Your task to perform on an android device: Find coffee shops on Maps Image 0: 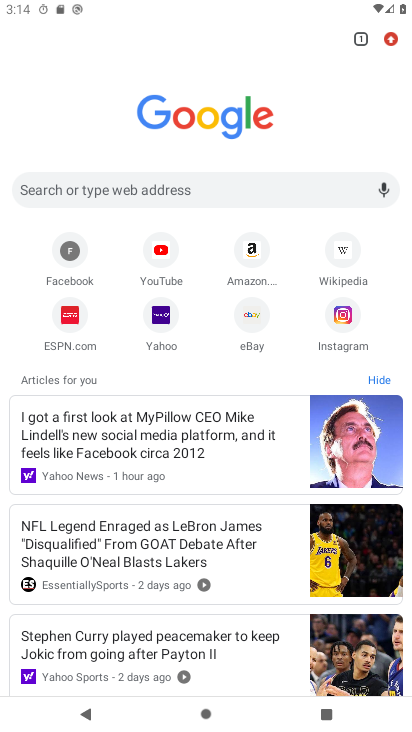
Step 0: press home button
Your task to perform on an android device: Find coffee shops on Maps Image 1: 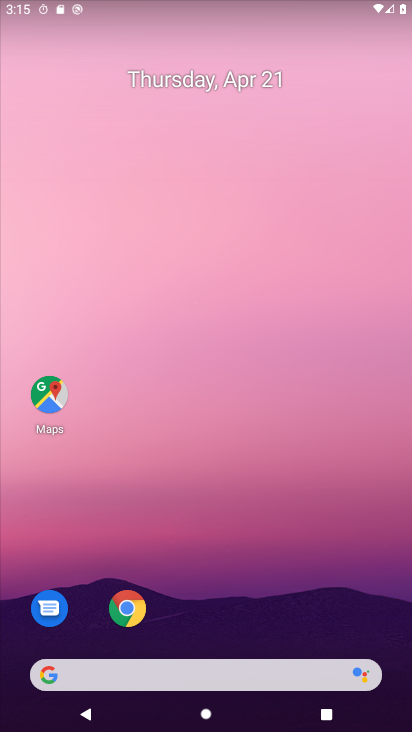
Step 1: click (44, 395)
Your task to perform on an android device: Find coffee shops on Maps Image 2: 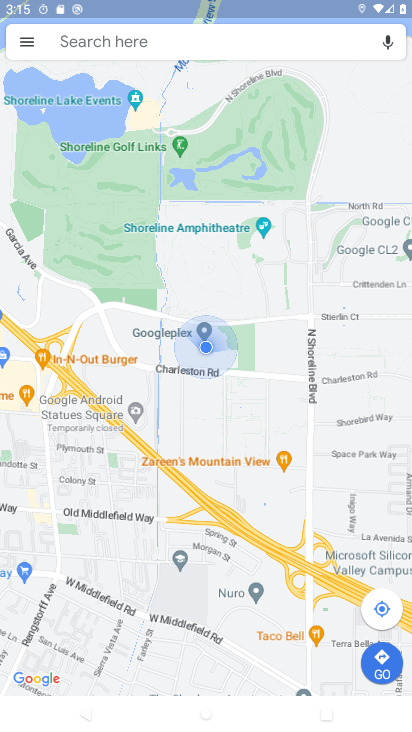
Step 2: click (141, 33)
Your task to perform on an android device: Find coffee shops on Maps Image 3: 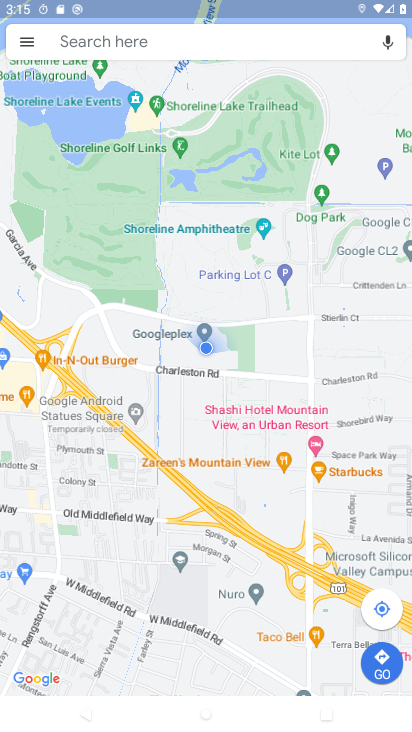
Step 3: click (141, 33)
Your task to perform on an android device: Find coffee shops on Maps Image 4: 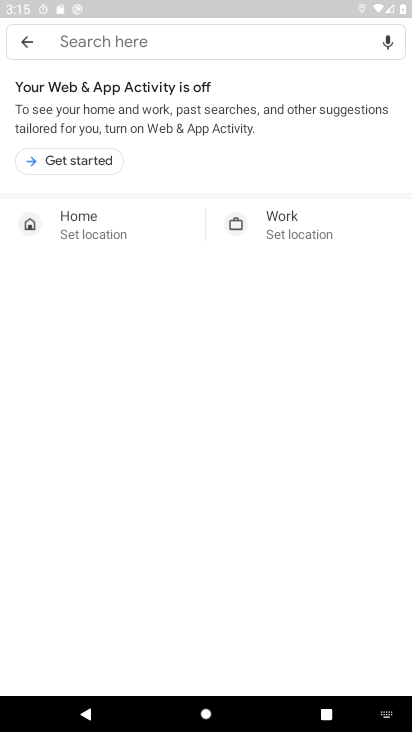
Step 4: click (141, 33)
Your task to perform on an android device: Find coffee shops on Maps Image 5: 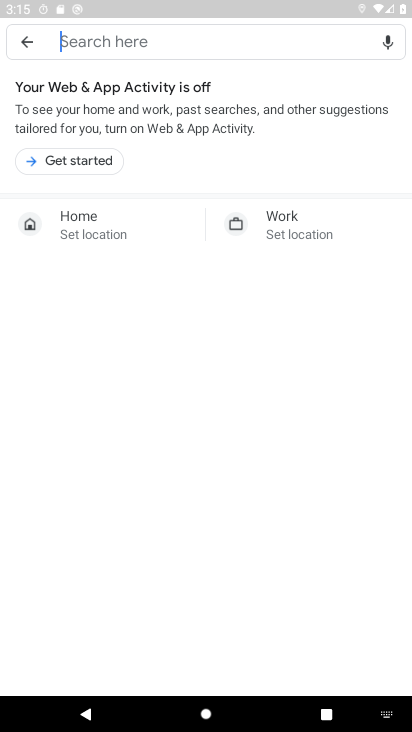
Step 5: type "coffee shops "
Your task to perform on an android device: Find coffee shops on Maps Image 6: 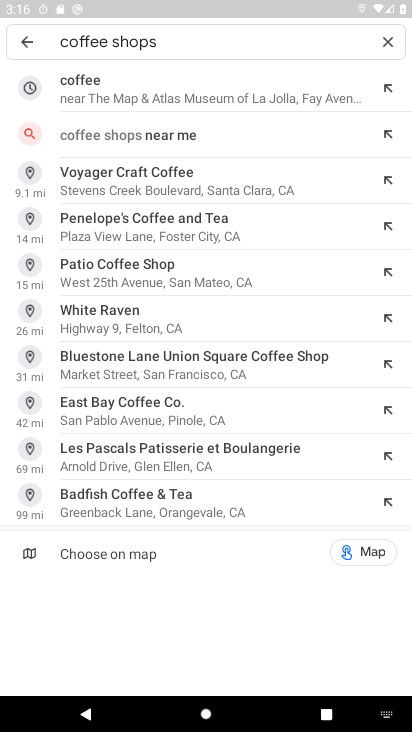
Step 6: click (175, 137)
Your task to perform on an android device: Find coffee shops on Maps Image 7: 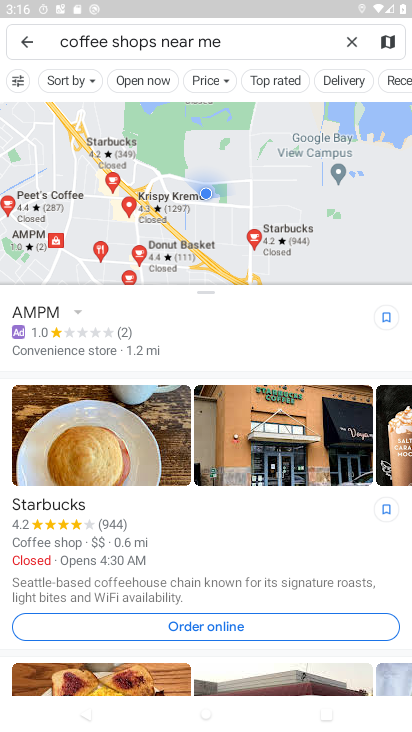
Step 7: task complete